Your task to perform on an android device: Go to network settings Image 0: 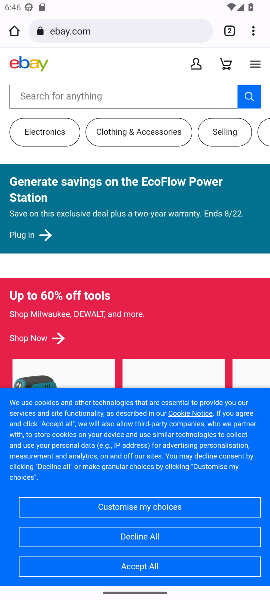
Step 0: press home button
Your task to perform on an android device: Go to network settings Image 1: 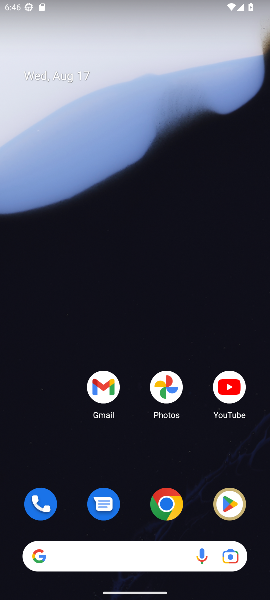
Step 1: drag from (161, 455) to (165, 70)
Your task to perform on an android device: Go to network settings Image 2: 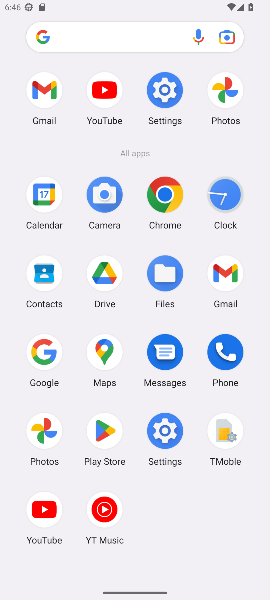
Step 2: click (166, 423)
Your task to perform on an android device: Go to network settings Image 3: 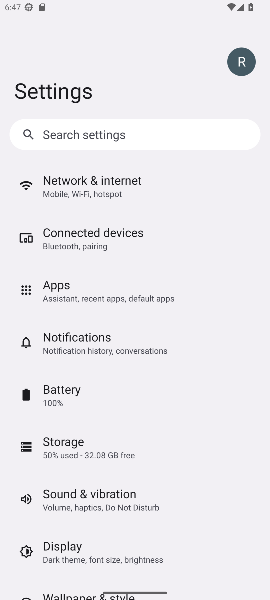
Step 3: click (151, 203)
Your task to perform on an android device: Go to network settings Image 4: 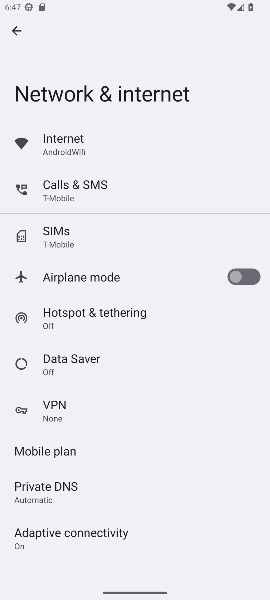
Step 4: task complete